Your task to perform on an android device: read, delete, or share a saved page in the chrome app Image 0: 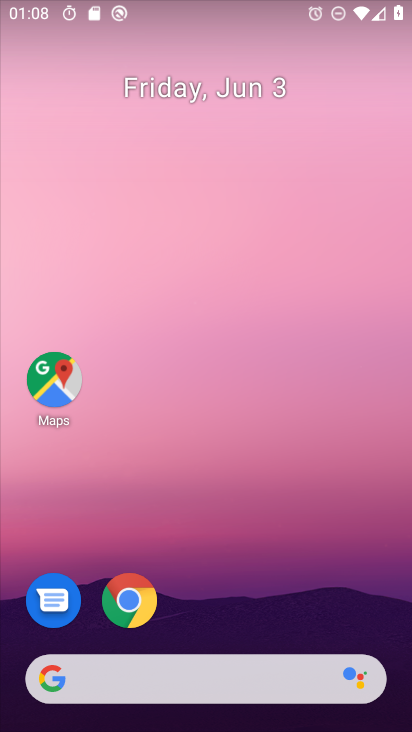
Step 0: drag from (201, 574) to (202, 147)
Your task to perform on an android device: read, delete, or share a saved page in the chrome app Image 1: 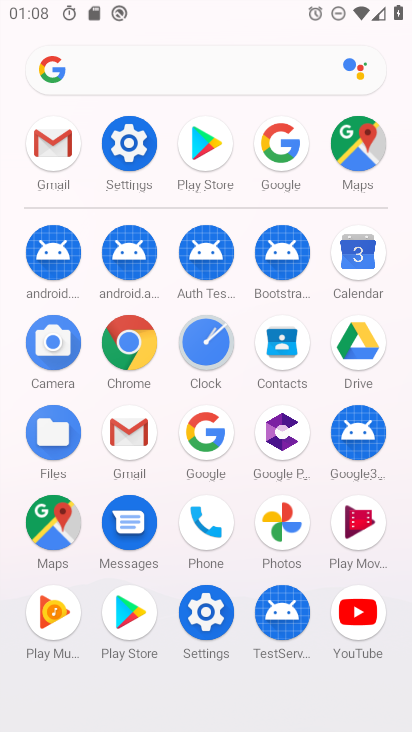
Step 1: click (117, 340)
Your task to perform on an android device: read, delete, or share a saved page in the chrome app Image 2: 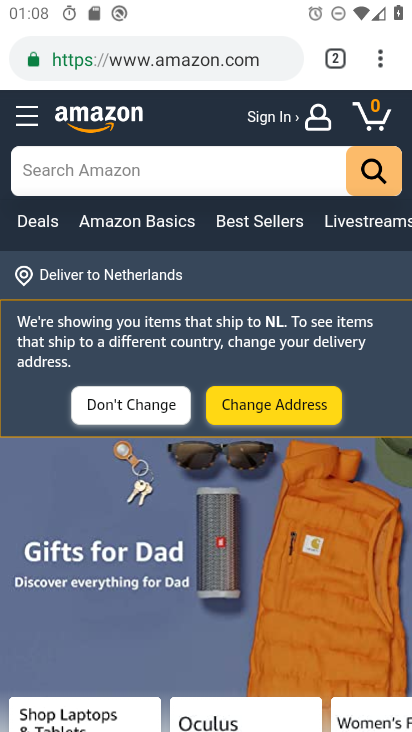
Step 2: click (373, 55)
Your task to perform on an android device: read, delete, or share a saved page in the chrome app Image 3: 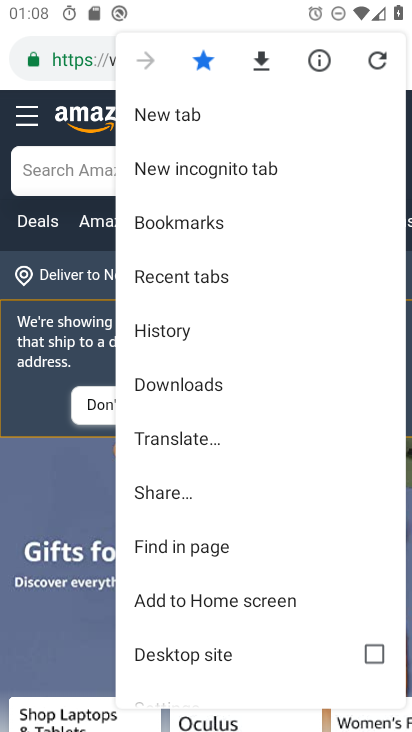
Step 3: click (250, 388)
Your task to perform on an android device: read, delete, or share a saved page in the chrome app Image 4: 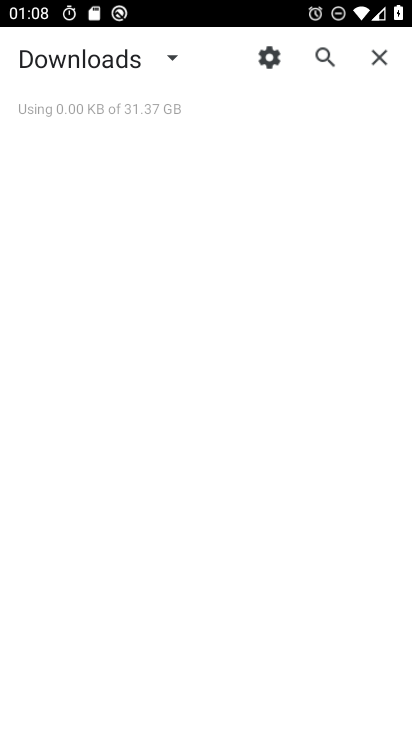
Step 4: task complete